Your task to perform on an android device: open wifi settings Image 0: 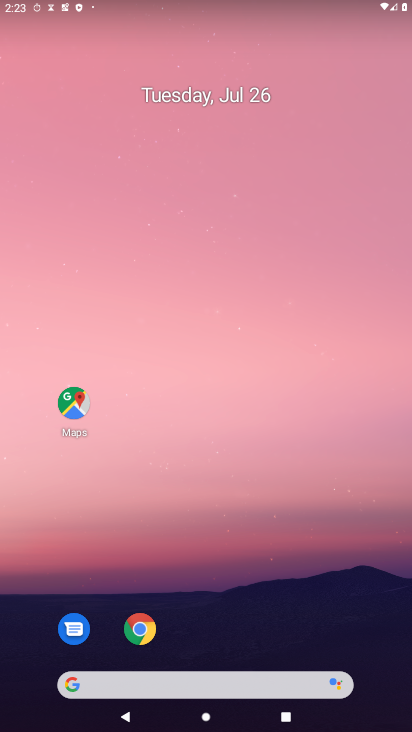
Step 0: drag from (310, 619) to (366, 76)
Your task to perform on an android device: open wifi settings Image 1: 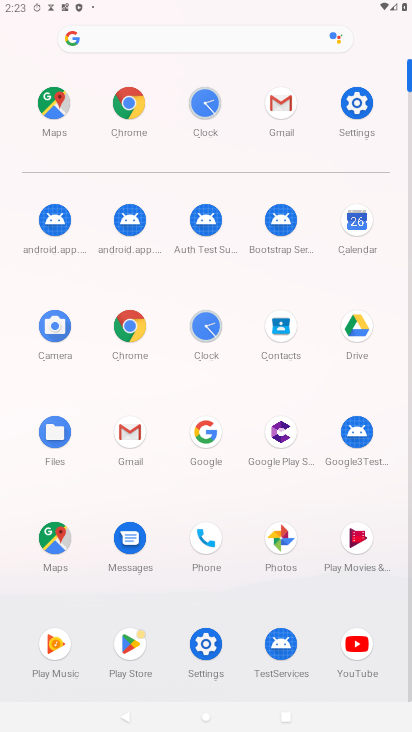
Step 1: click (359, 110)
Your task to perform on an android device: open wifi settings Image 2: 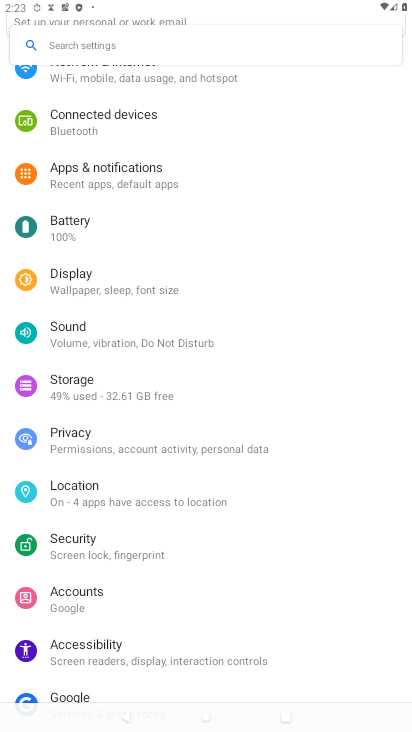
Step 2: drag from (229, 140) to (219, 472)
Your task to perform on an android device: open wifi settings Image 3: 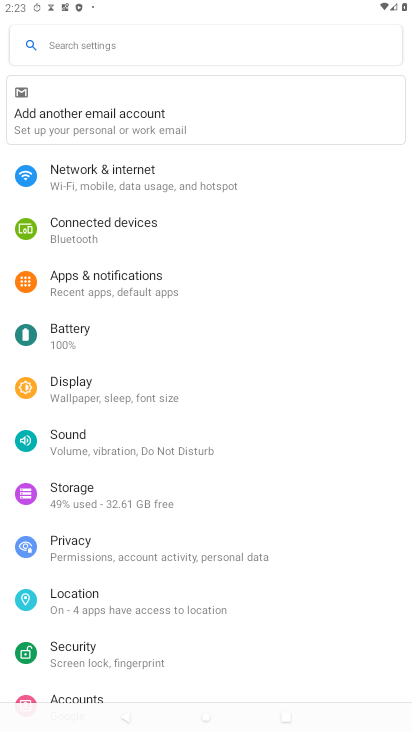
Step 3: click (51, 172)
Your task to perform on an android device: open wifi settings Image 4: 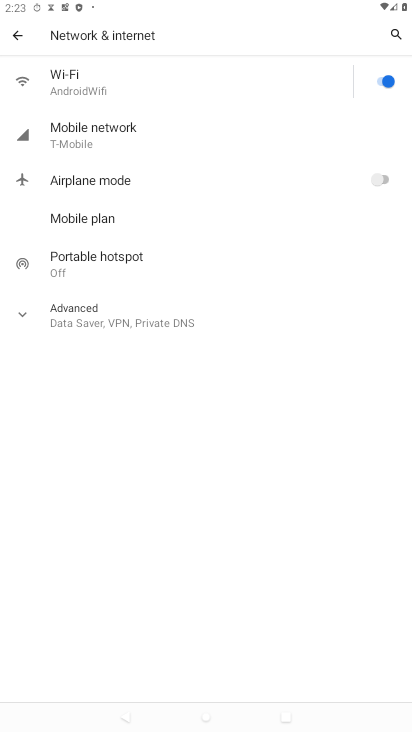
Step 4: click (118, 83)
Your task to perform on an android device: open wifi settings Image 5: 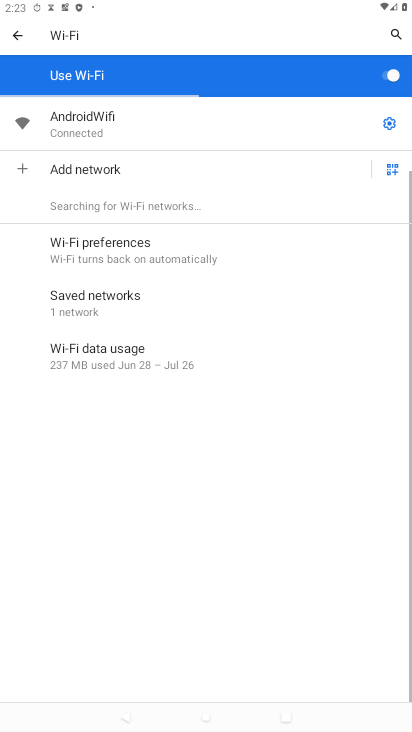
Step 5: task complete